Your task to perform on an android device: open app "PlayWell" (install if not already installed) and go to login screen Image 0: 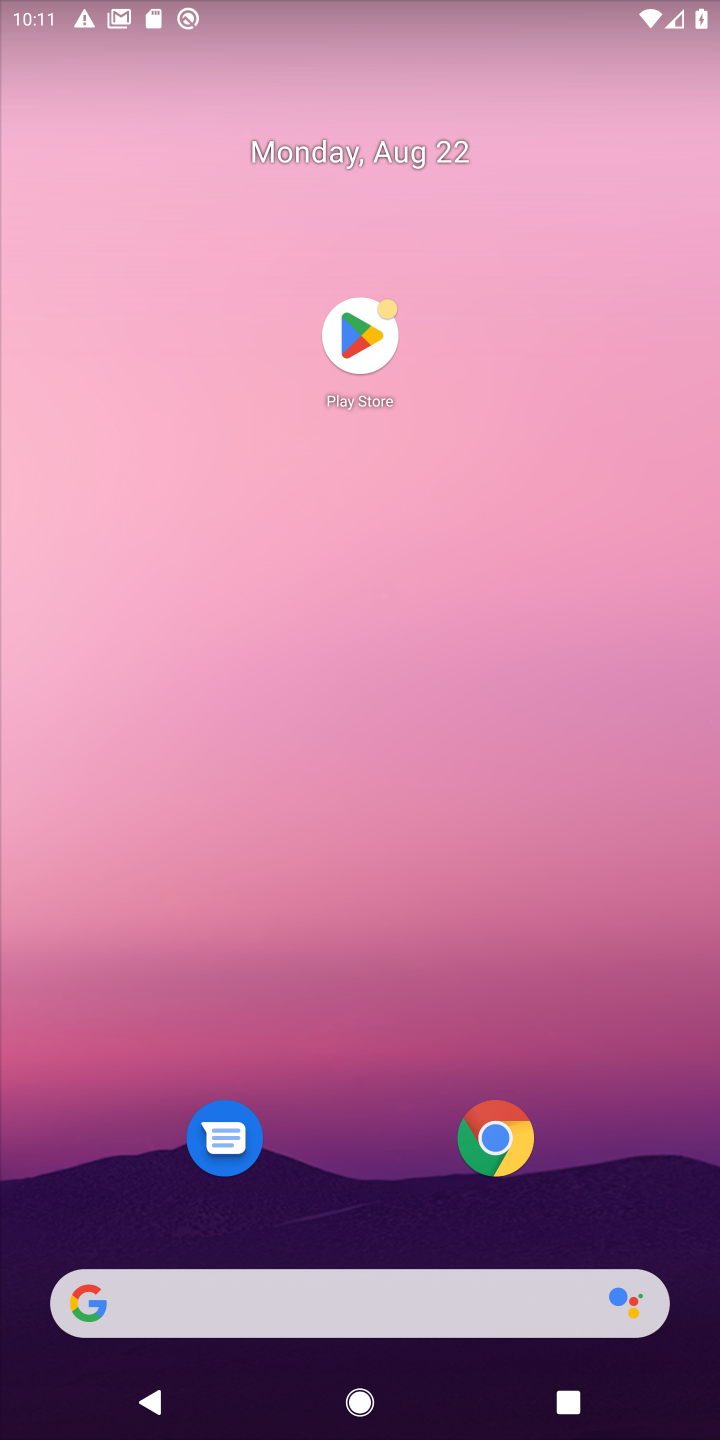
Step 0: click (356, 352)
Your task to perform on an android device: open app "PlayWell" (install if not already installed) and go to login screen Image 1: 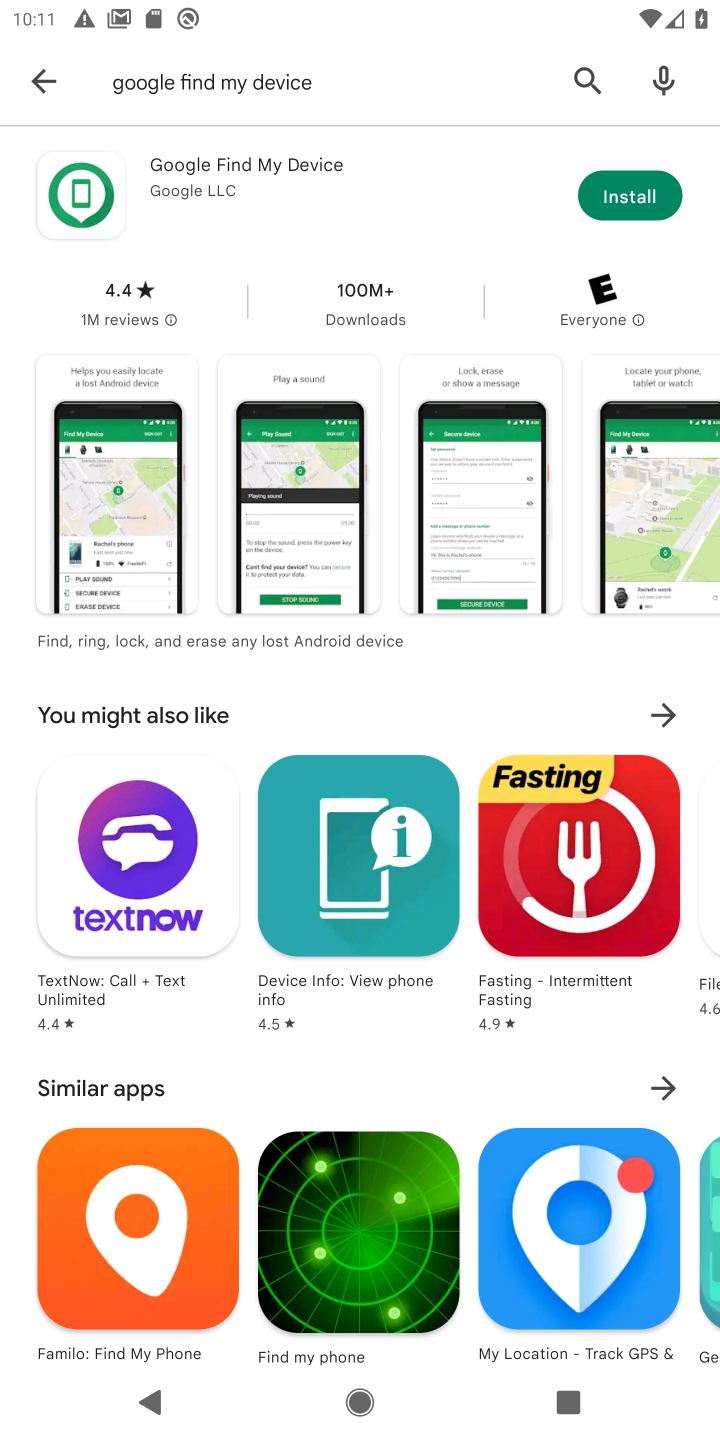
Step 1: click (577, 81)
Your task to perform on an android device: open app "PlayWell" (install if not already installed) and go to login screen Image 2: 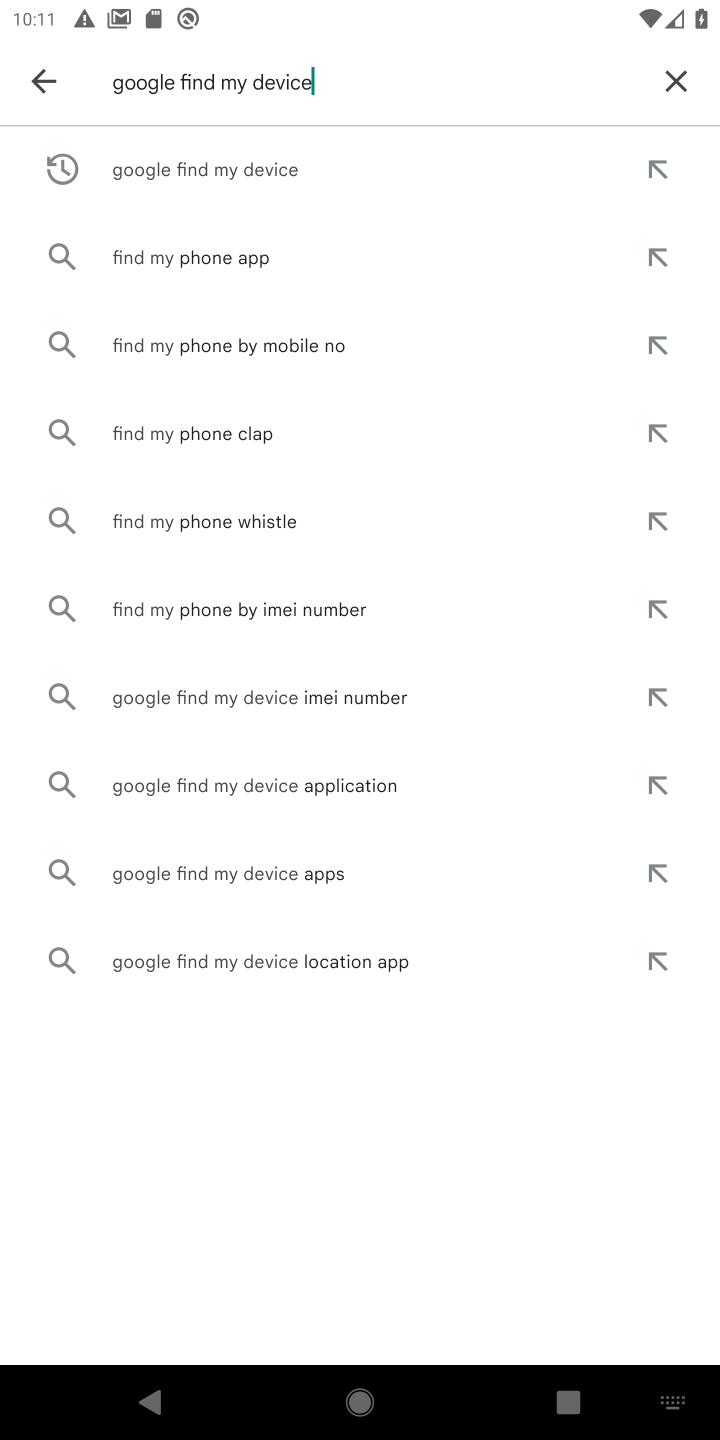
Step 2: click (680, 86)
Your task to perform on an android device: open app "PlayWell" (install if not already installed) and go to login screen Image 3: 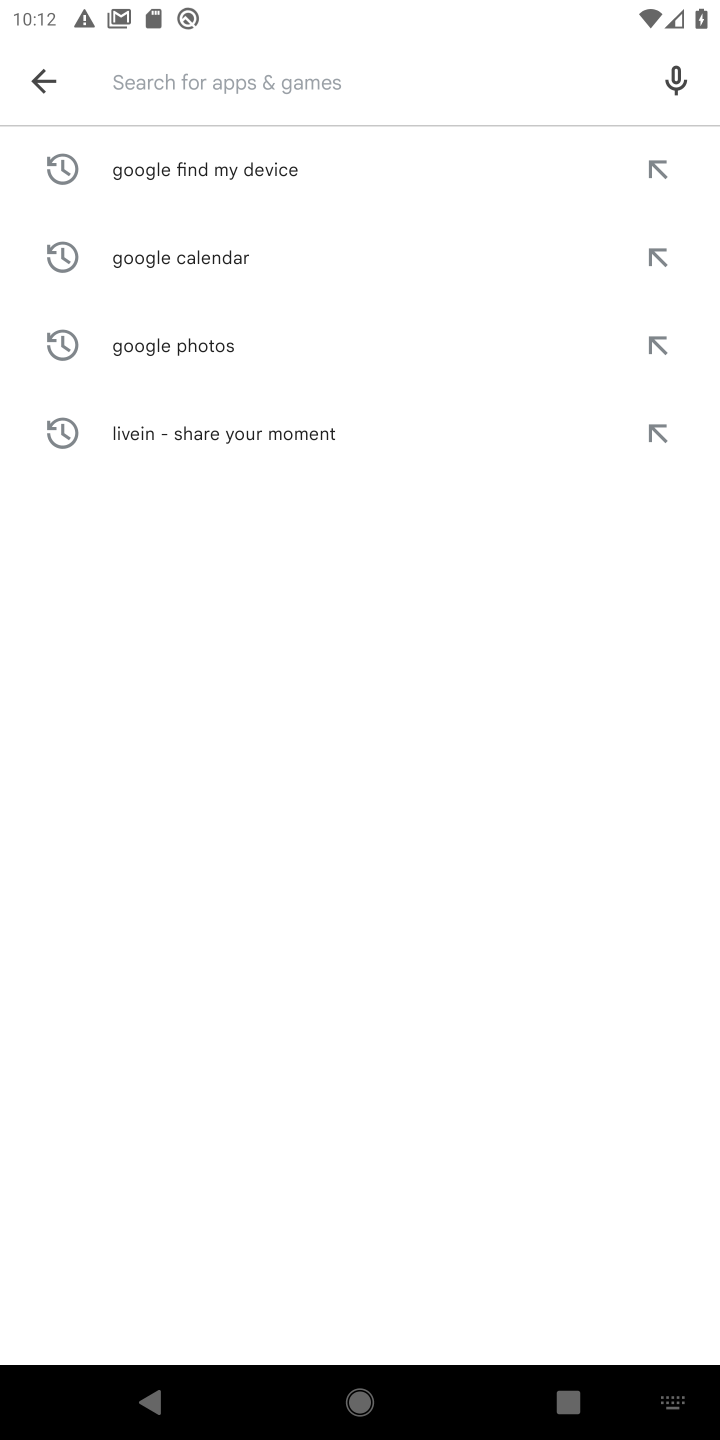
Step 3: type "playwell"
Your task to perform on an android device: open app "PlayWell" (install if not already installed) and go to login screen Image 4: 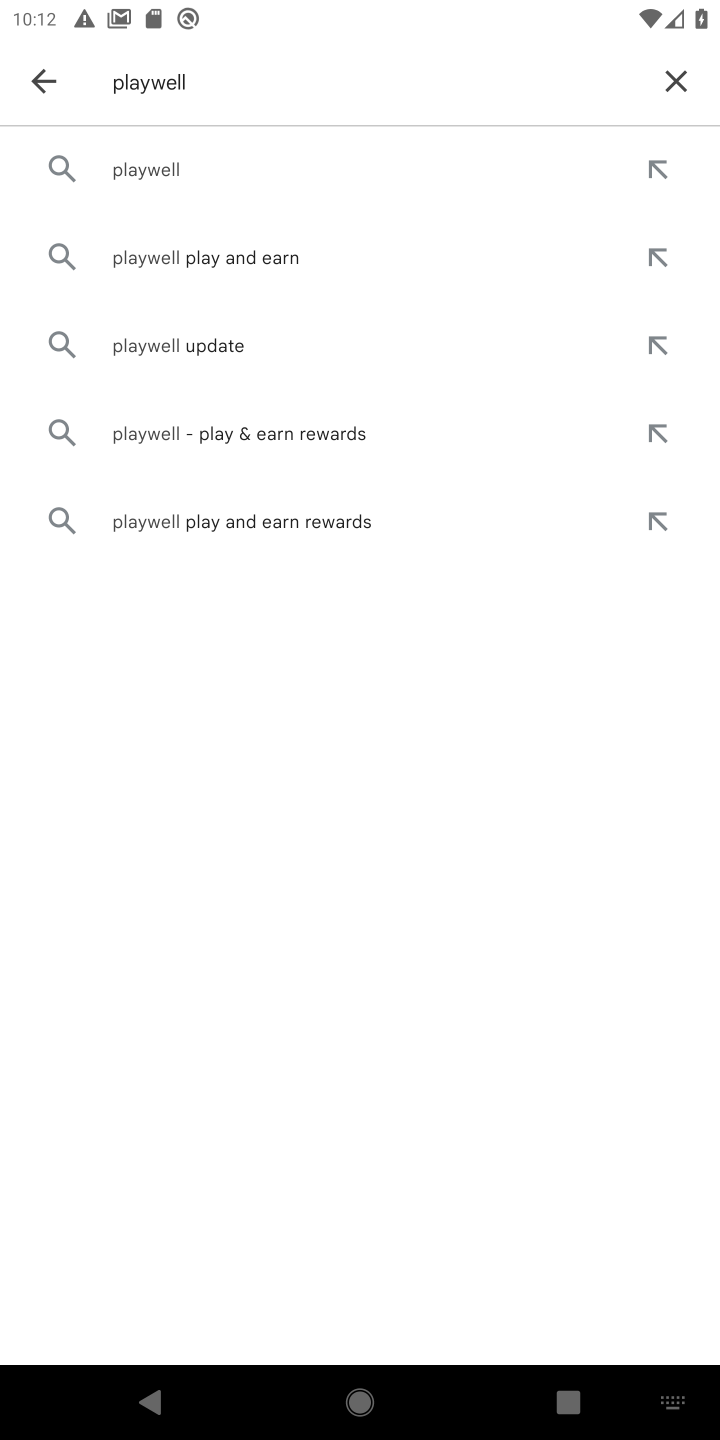
Step 4: click (164, 173)
Your task to perform on an android device: open app "PlayWell" (install if not already installed) and go to login screen Image 5: 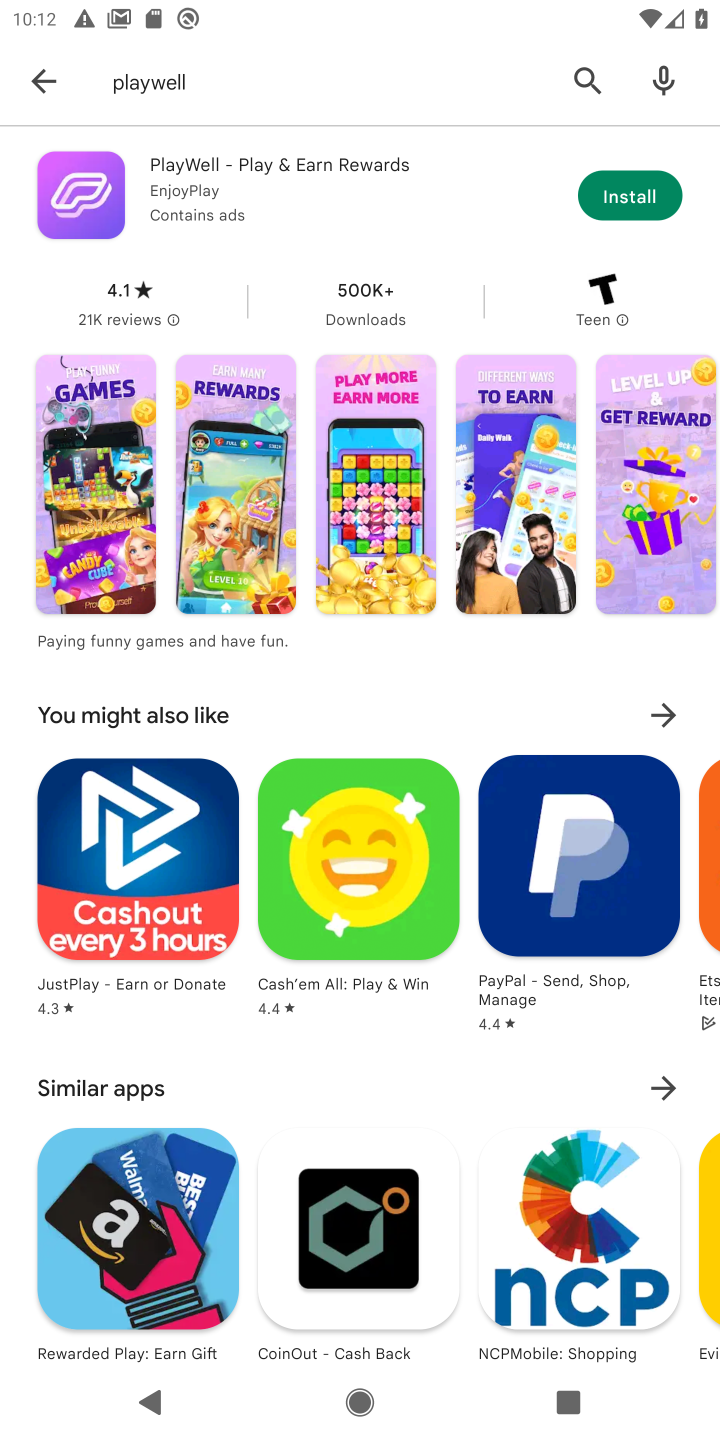
Step 5: click (650, 199)
Your task to perform on an android device: open app "PlayWell" (install if not already installed) and go to login screen Image 6: 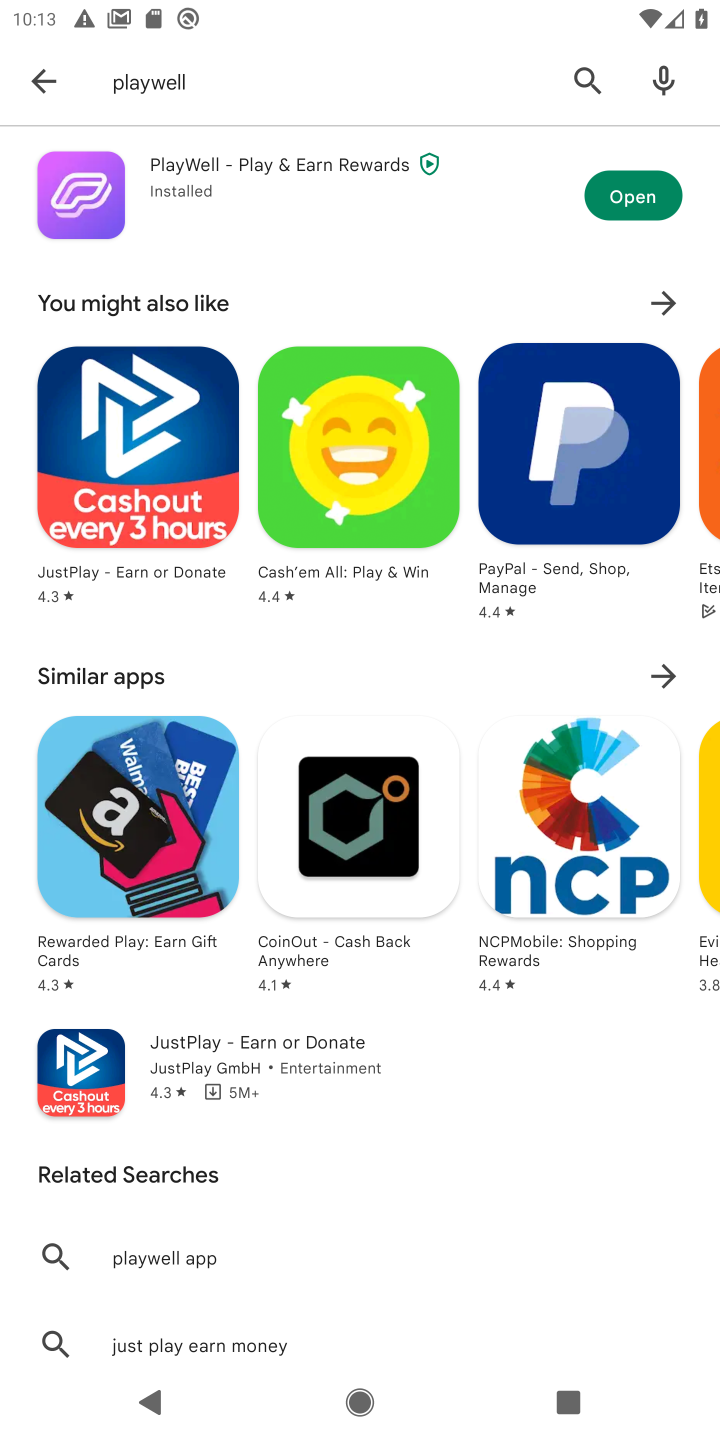
Step 6: click (644, 199)
Your task to perform on an android device: open app "PlayWell" (install if not already installed) and go to login screen Image 7: 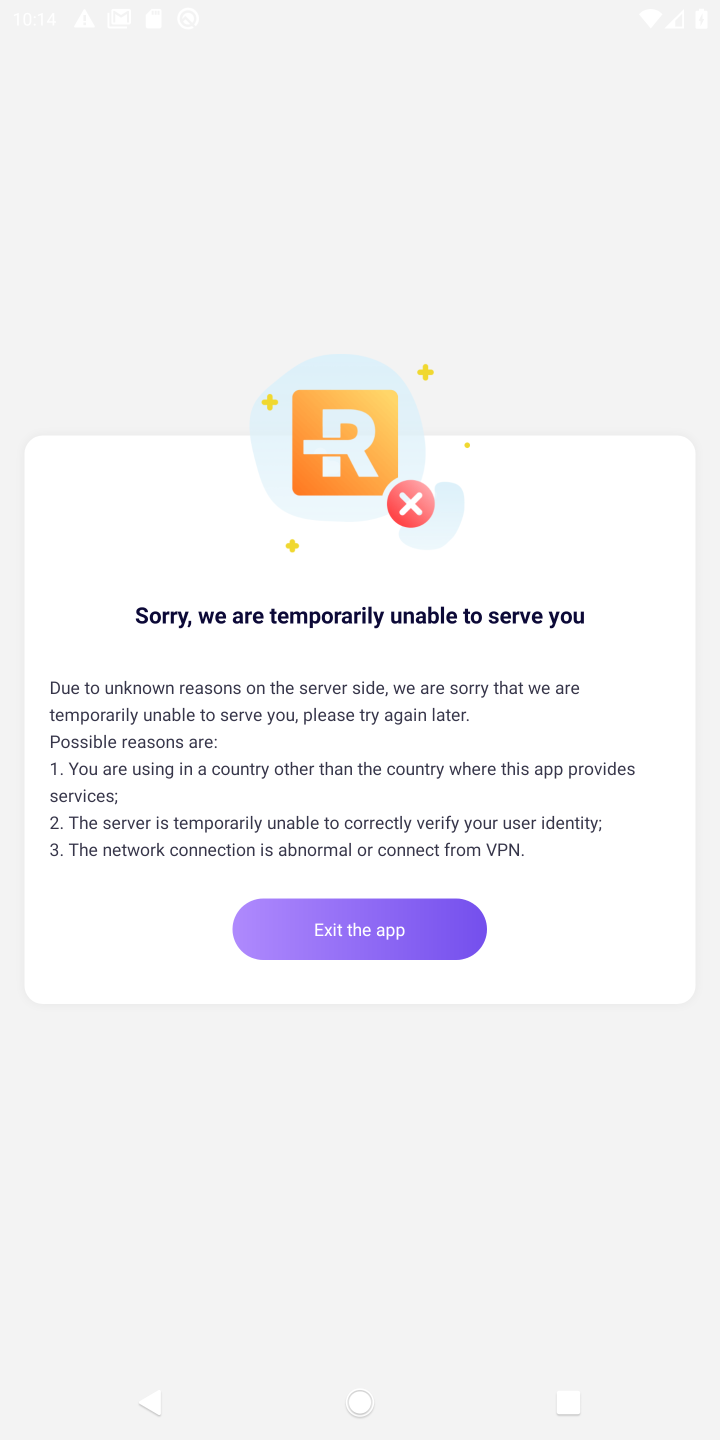
Step 7: task complete